Your task to perform on an android device: Open wifi settings Image 0: 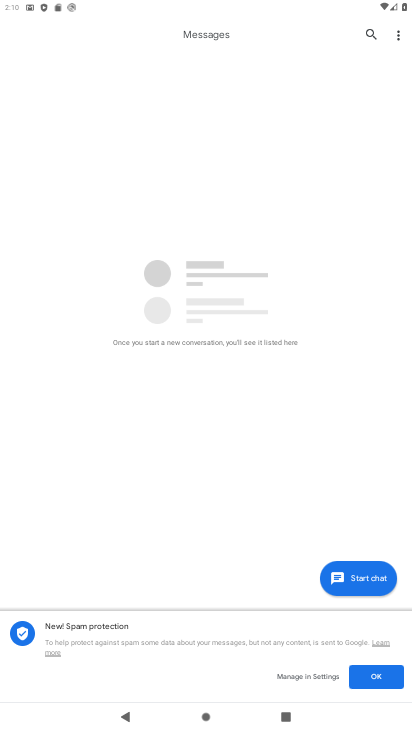
Step 0: press home button
Your task to perform on an android device: Open wifi settings Image 1: 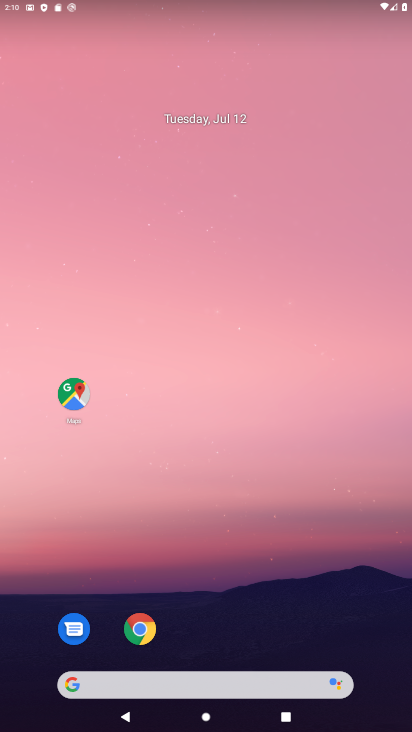
Step 1: drag from (197, 683) to (251, 151)
Your task to perform on an android device: Open wifi settings Image 2: 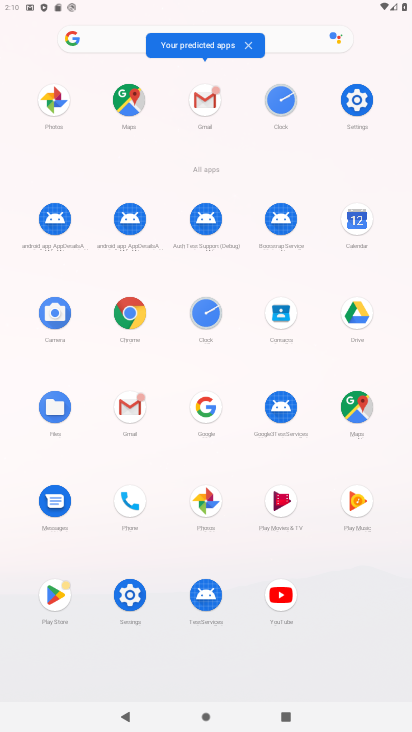
Step 2: click (359, 99)
Your task to perform on an android device: Open wifi settings Image 3: 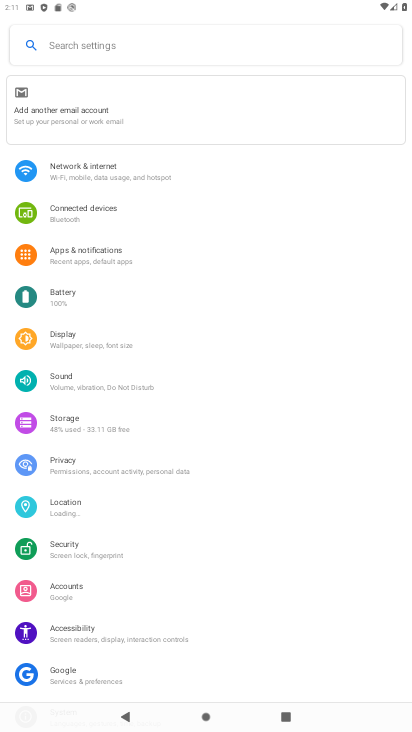
Step 3: click (108, 175)
Your task to perform on an android device: Open wifi settings Image 4: 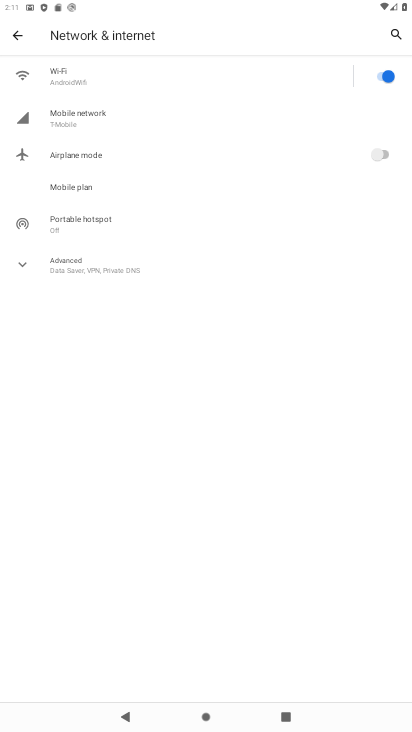
Step 4: click (74, 79)
Your task to perform on an android device: Open wifi settings Image 5: 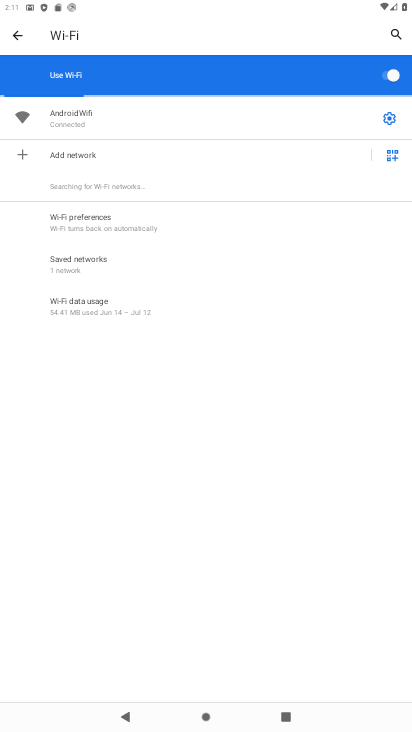
Step 5: click (388, 119)
Your task to perform on an android device: Open wifi settings Image 6: 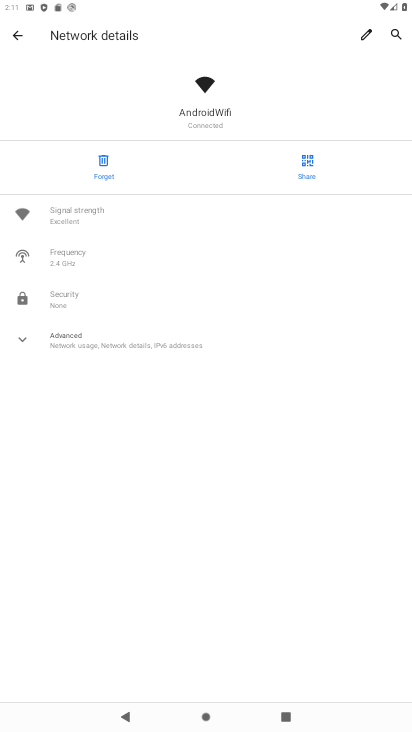
Step 6: task complete